Your task to perform on an android device: change your default location settings in chrome Image 0: 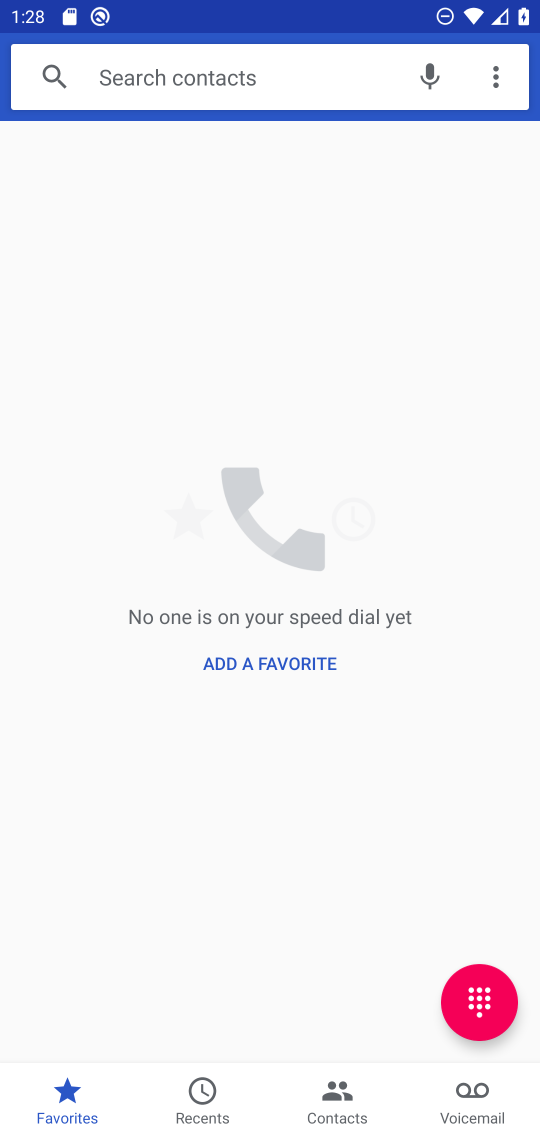
Step 0: press home button
Your task to perform on an android device: change your default location settings in chrome Image 1: 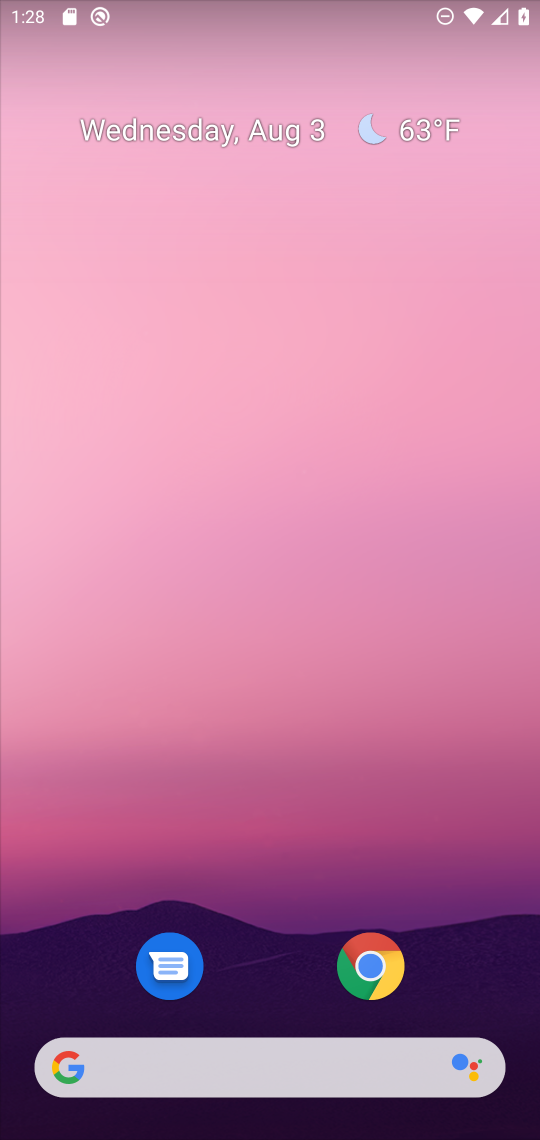
Step 1: click (362, 966)
Your task to perform on an android device: change your default location settings in chrome Image 2: 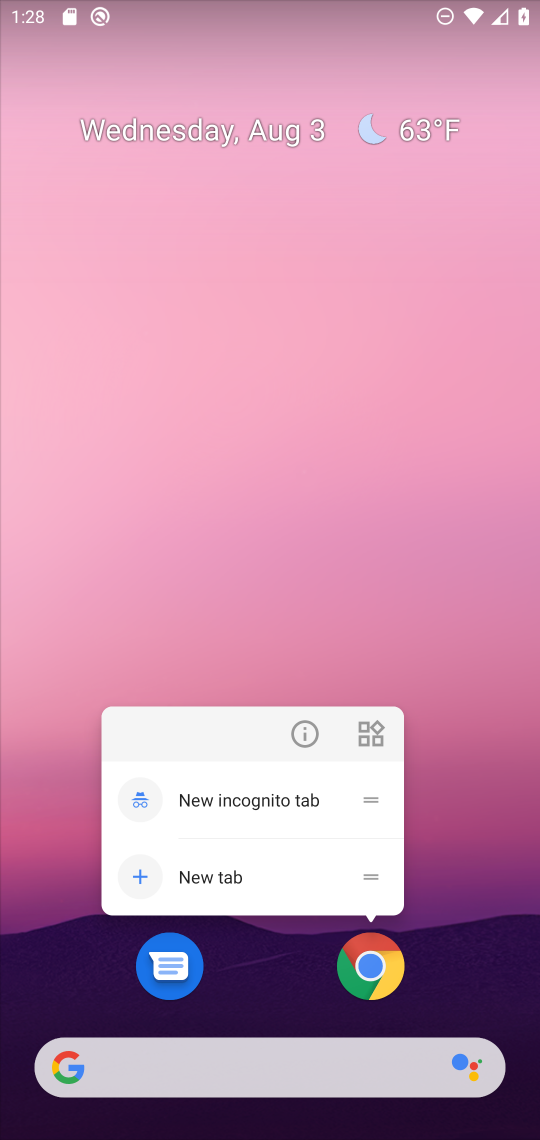
Step 2: click (372, 993)
Your task to perform on an android device: change your default location settings in chrome Image 3: 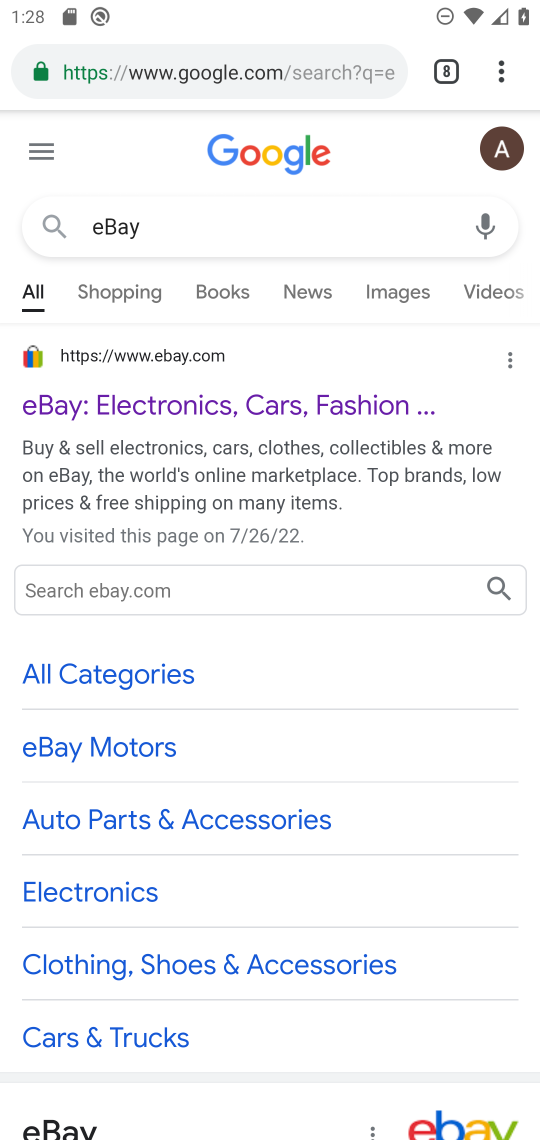
Step 3: click (506, 65)
Your task to perform on an android device: change your default location settings in chrome Image 4: 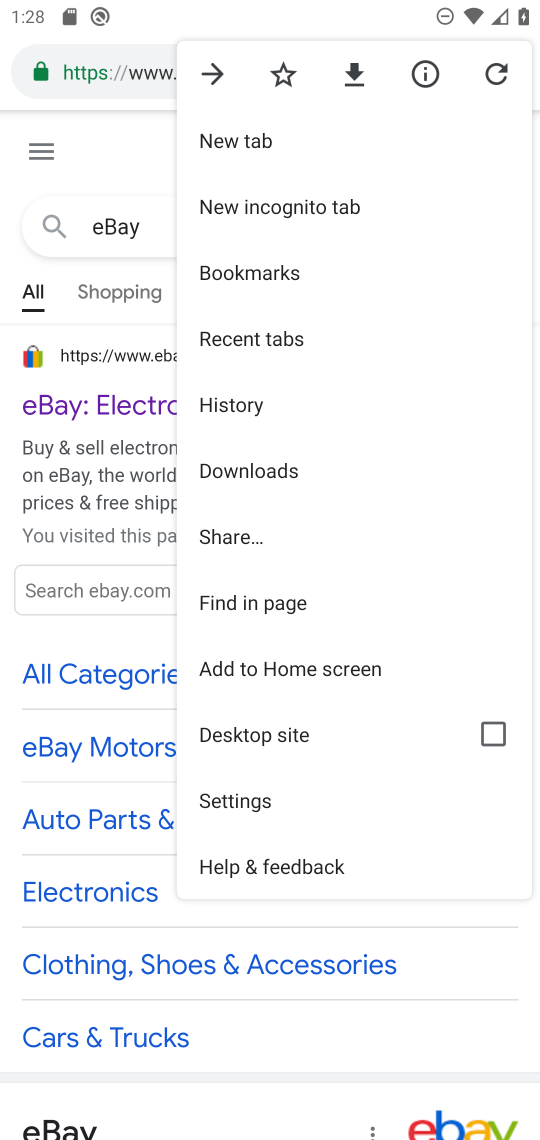
Step 4: click (277, 794)
Your task to perform on an android device: change your default location settings in chrome Image 5: 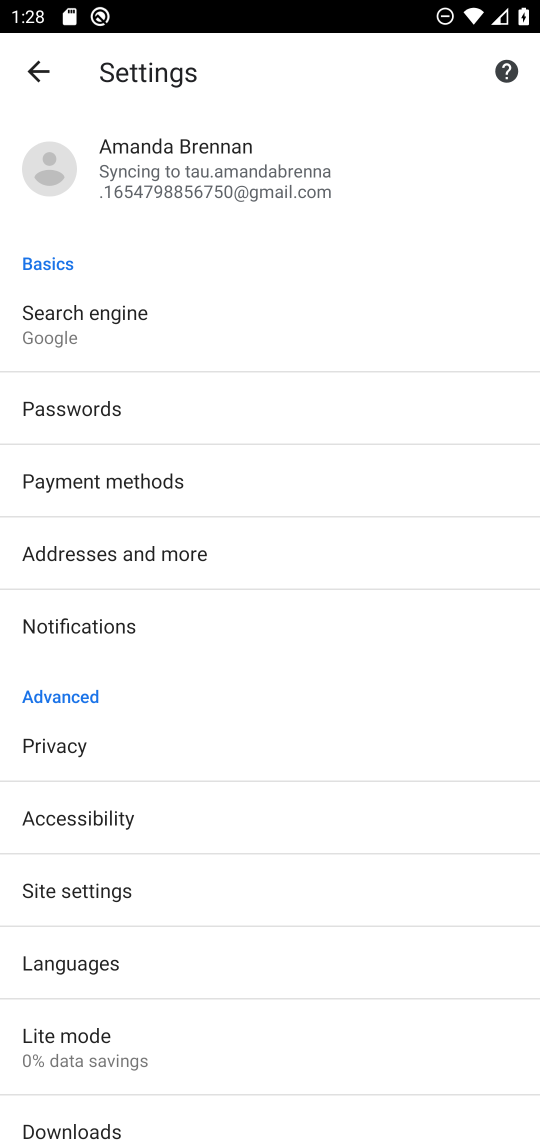
Step 5: click (115, 900)
Your task to perform on an android device: change your default location settings in chrome Image 6: 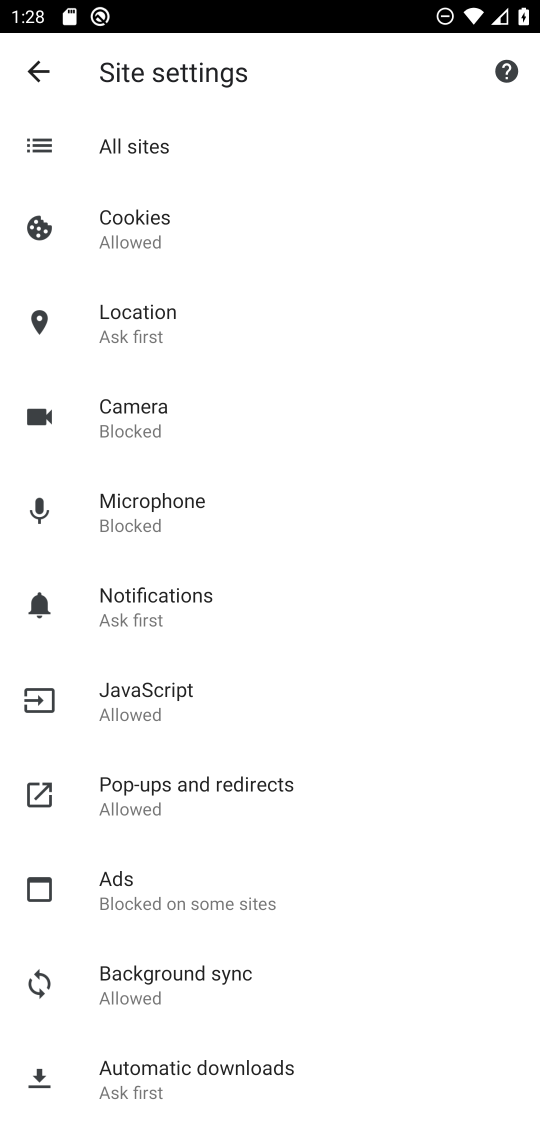
Step 6: click (210, 309)
Your task to perform on an android device: change your default location settings in chrome Image 7: 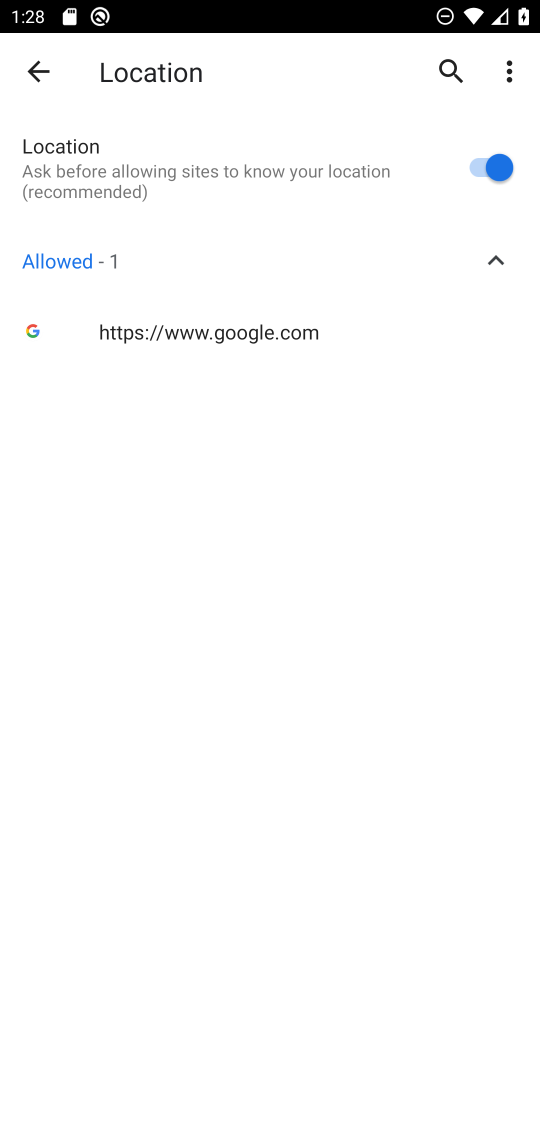
Step 7: click (482, 187)
Your task to perform on an android device: change your default location settings in chrome Image 8: 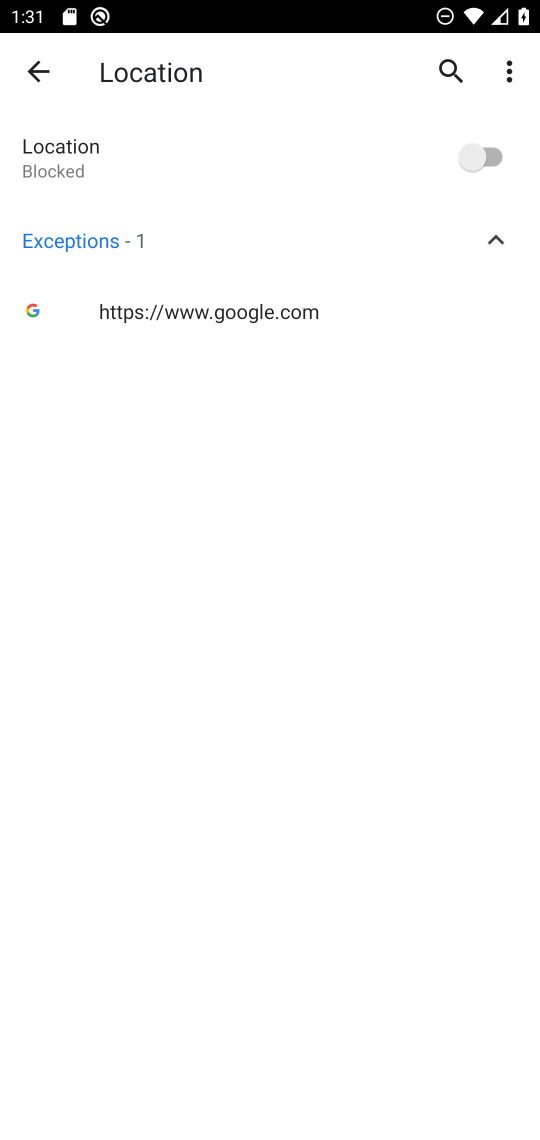
Step 8: task complete